Your task to perform on an android device: Turn off the flashlight Image 0: 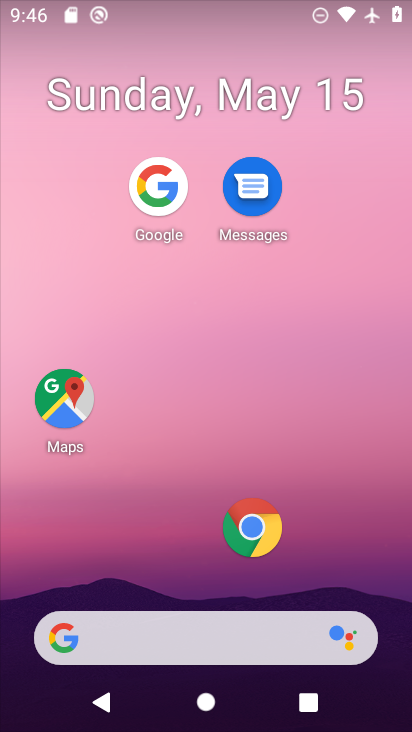
Step 0: press home button
Your task to perform on an android device: Turn off the flashlight Image 1: 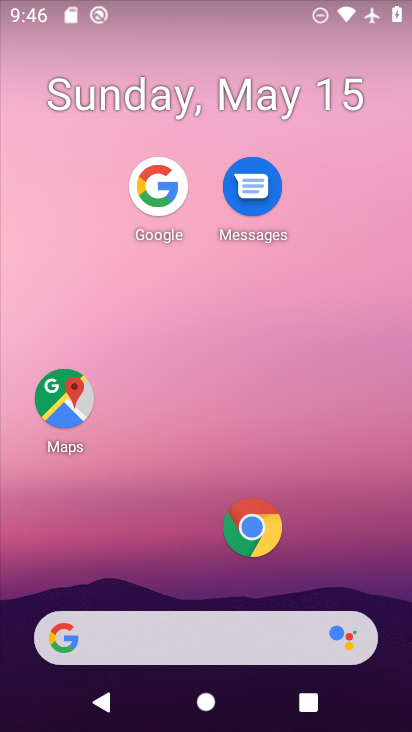
Step 1: task complete